Your task to perform on an android device: see sites visited before in the chrome app Image 0: 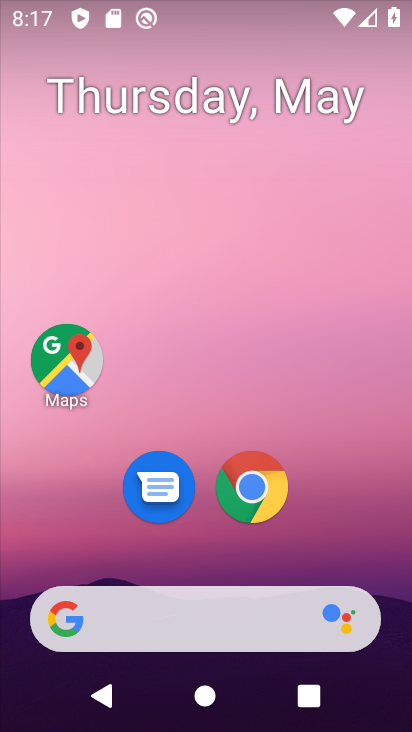
Step 0: click (265, 494)
Your task to perform on an android device: see sites visited before in the chrome app Image 1: 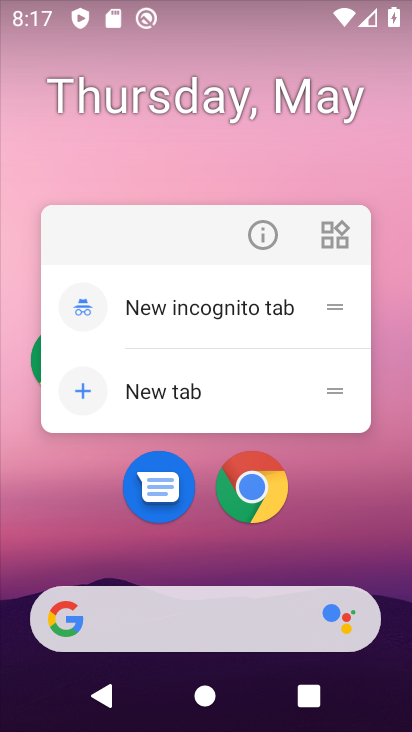
Step 1: click (278, 500)
Your task to perform on an android device: see sites visited before in the chrome app Image 2: 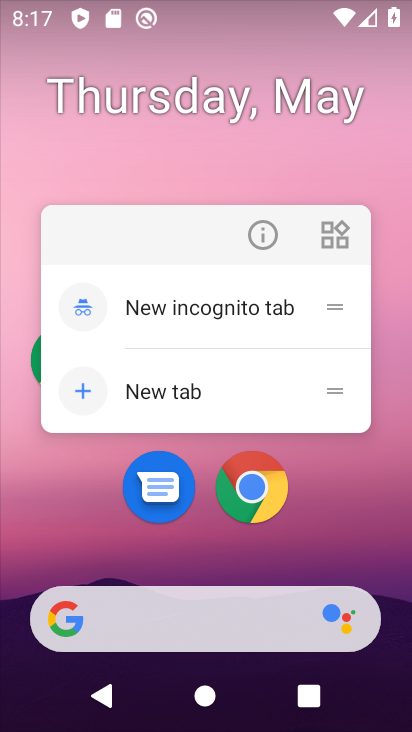
Step 2: click (268, 504)
Your task to perform on an android device: see sites visited before in the chrome app Image 3: 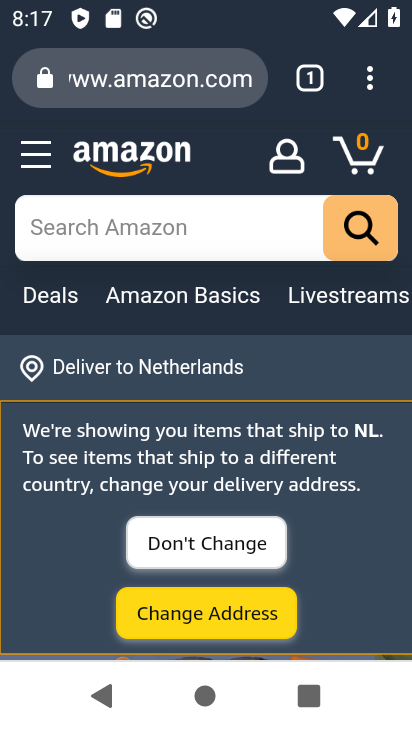
Step 3: click (374, 75)
Your task to perform on an android device: see sites visited before in the chrome app Image 4: 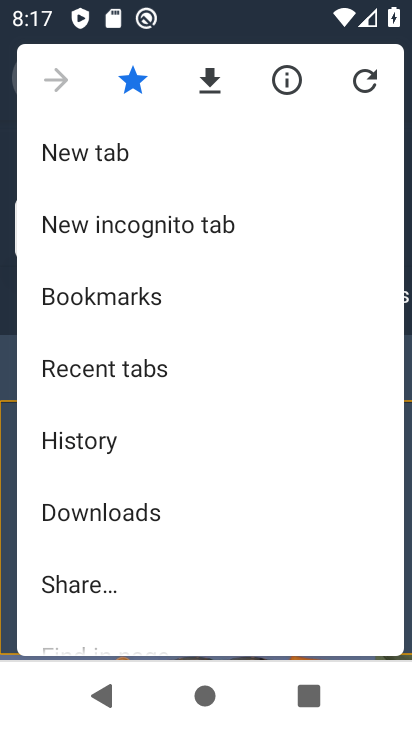
Step 4: click (110, 457)
Your task to perform on an android device: see sites visited before in the chrome app Image 5: 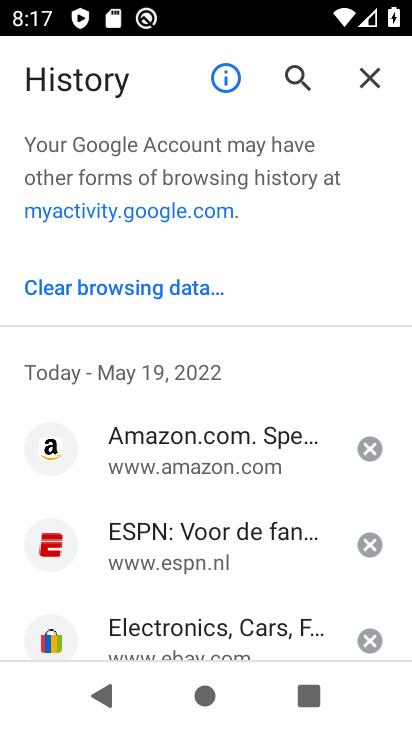
Step 5: task complete